Your task to perform on an android device: toggle priority inbox in the gmail app Image 0: 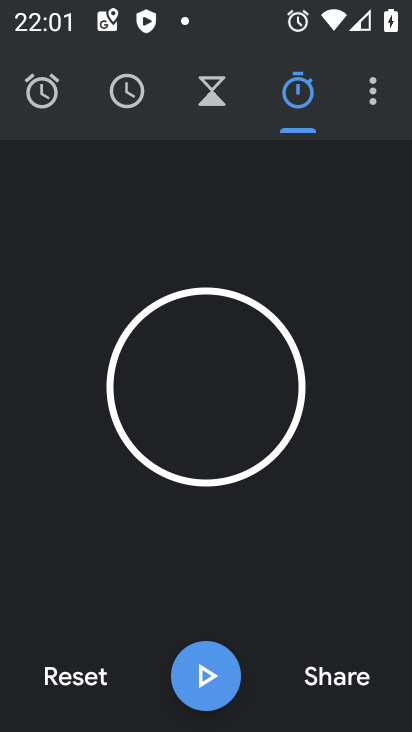
Step 0: press home button
Your task to perform on an android device: toggle priority inbox in the gmail app Image 1: 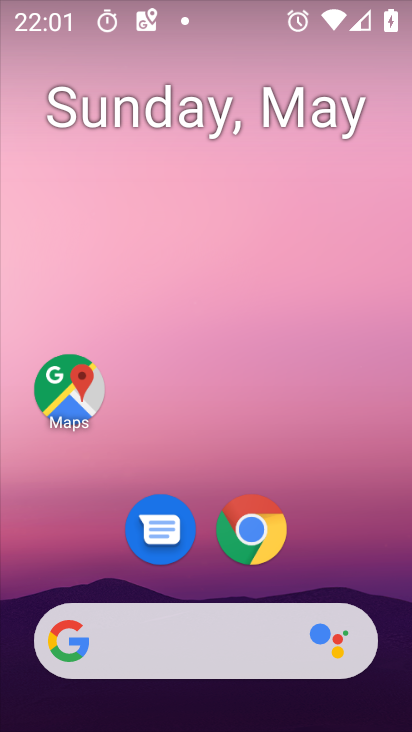
Step 1: drag from (381, 598) to (330, 9)
Your task to perform on an android device: toggle priority inbox in the gmail app Image 2: 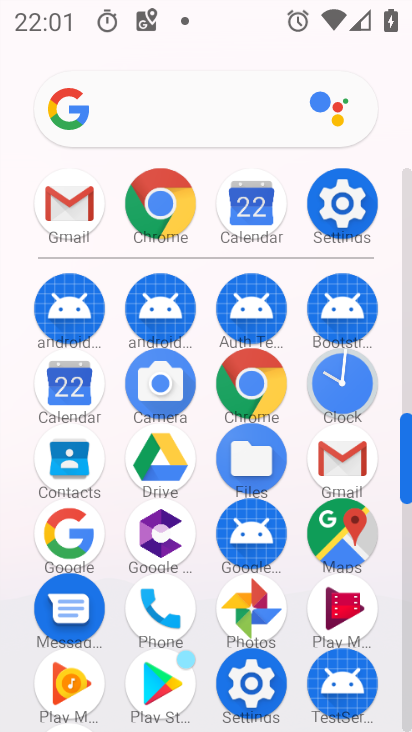
Step 2: click (71, 210)
Your task to perform on an android device: toggle priority inbox in the gmail app Image 3: 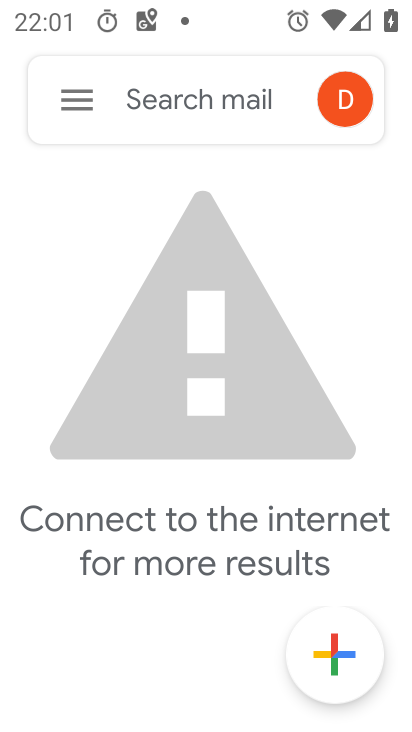
Step 3: click (72, 109)
Your task to perform on an android device: toggle priority inbox in the gmail app Image 4: 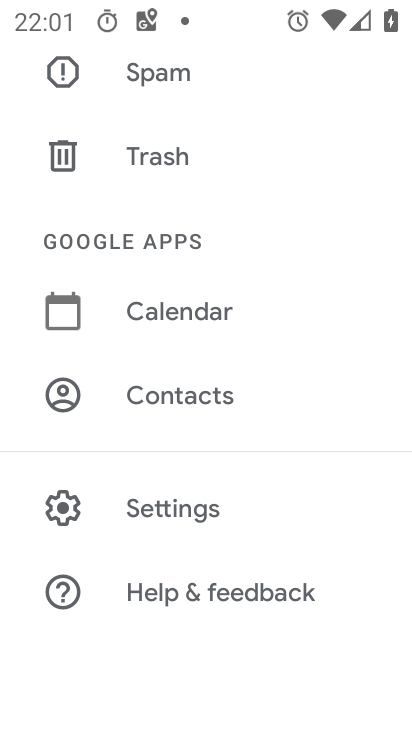
Step 4: click (152, 516)
Your task to perform on an android device: toggle priority inbox in the gmail app Image 5: 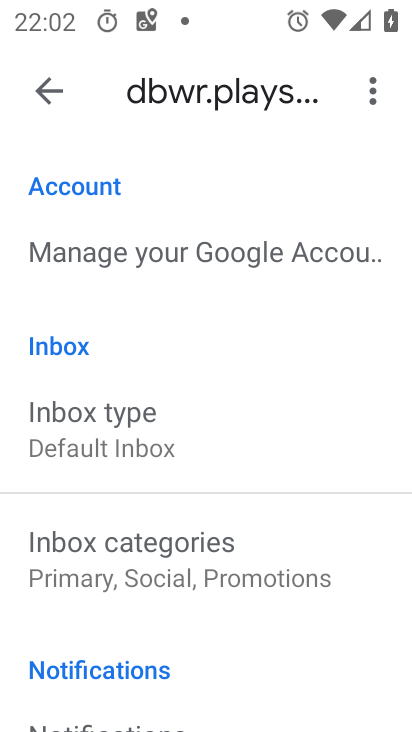
Step 5: click (117, 454)
Your task to perform on an android device: toggle priority inbox in the gmail app Image 6: 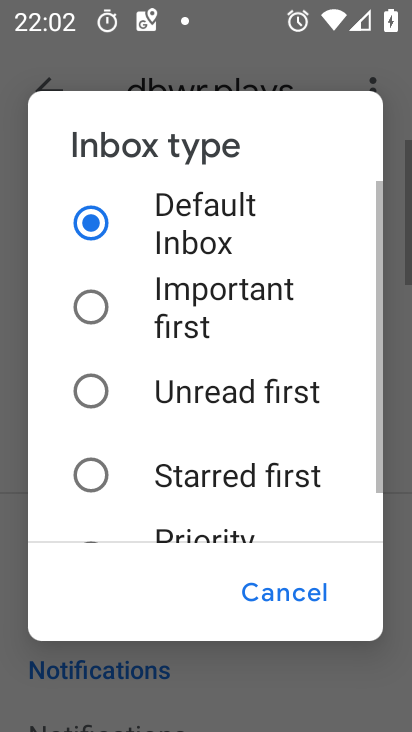
Step 6: drag from (159, 462) to (175, 230)
Your task to perform on an android device: toggle priority inbox in the gmail app Image 7: 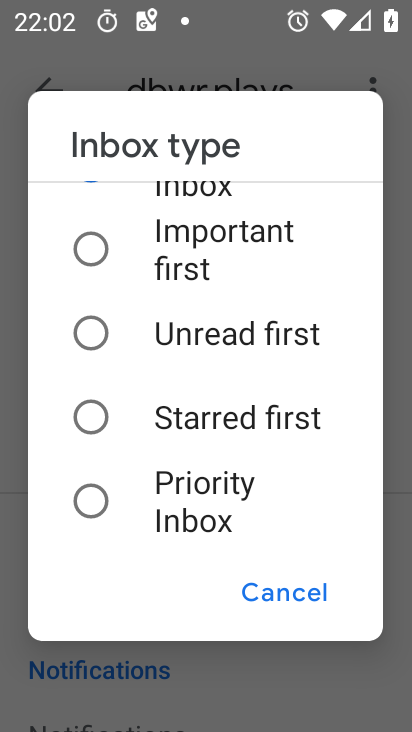
Step 7: click (99, 507)
Your task to perform on an android device: toggle priority inbox in the gmail app Image 8: 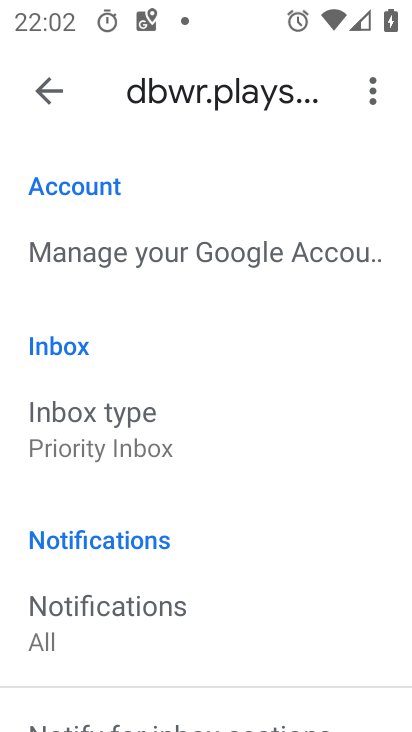
Step 8: task complete